Your task to perform on an android device: create a new album in the google photos Image 0: 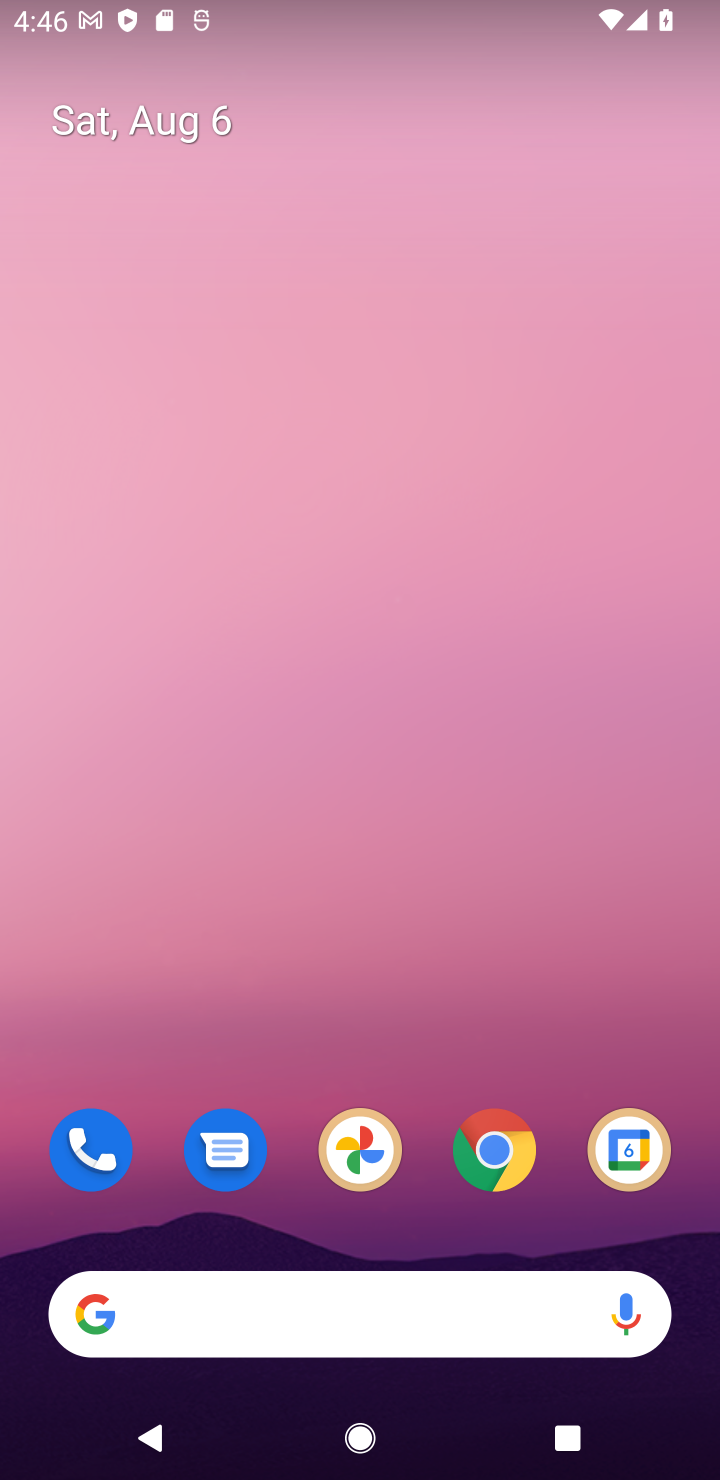
Step 0: click (356, 1143)
Your task to perform on an android device: create a new album in the google photos Image 1: 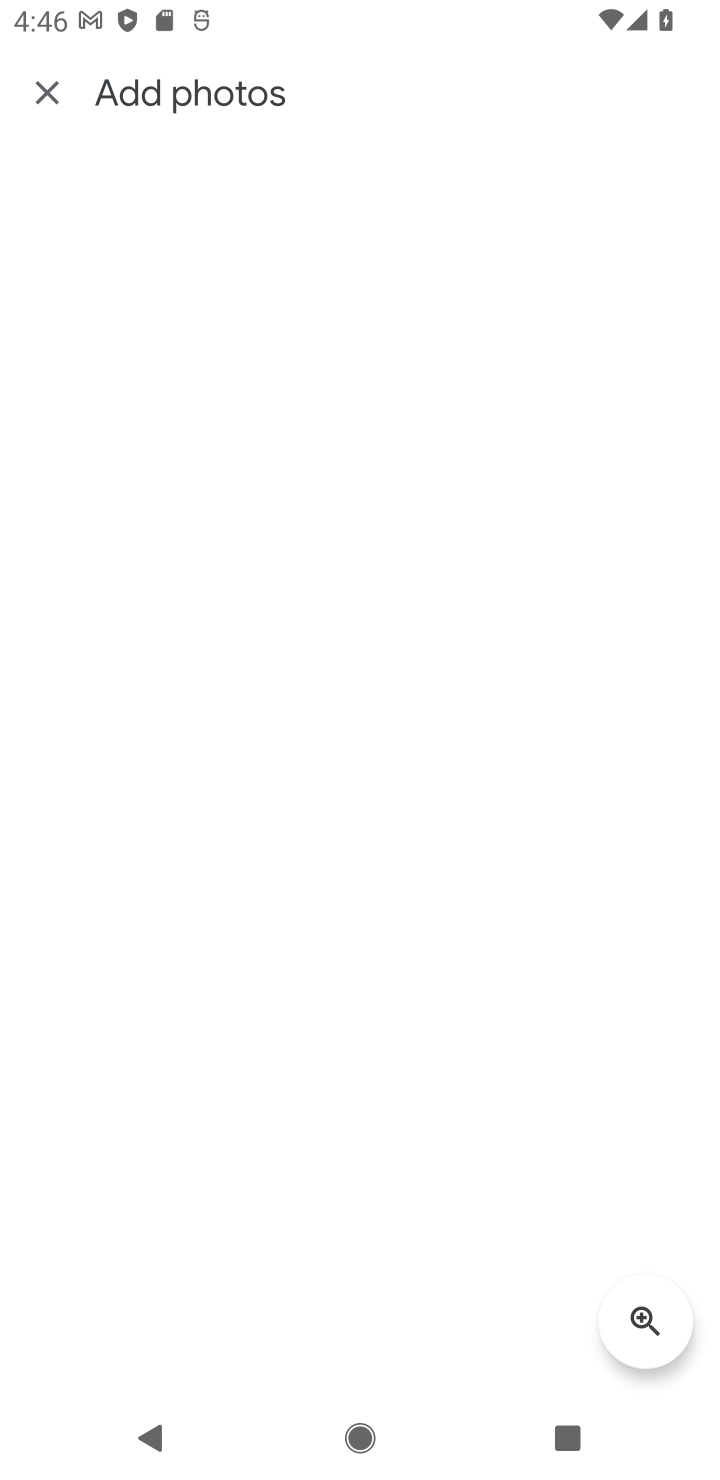
Step 1: click (42, 87)
Your task to perform on an android device: create a new album in the google photos Image 2: 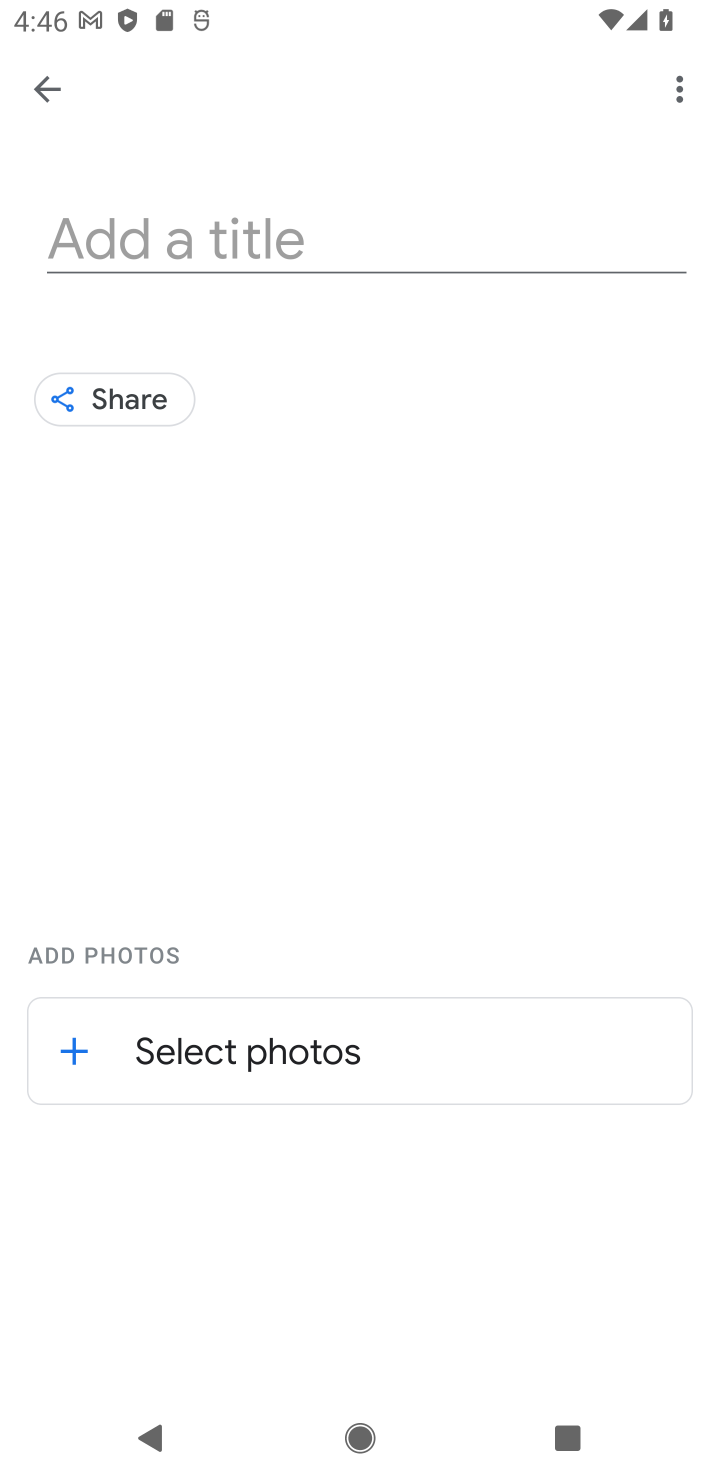
Step 2: click (212, 1048)
Your task to perform on an android device: create a new album in the google photos Image 3: 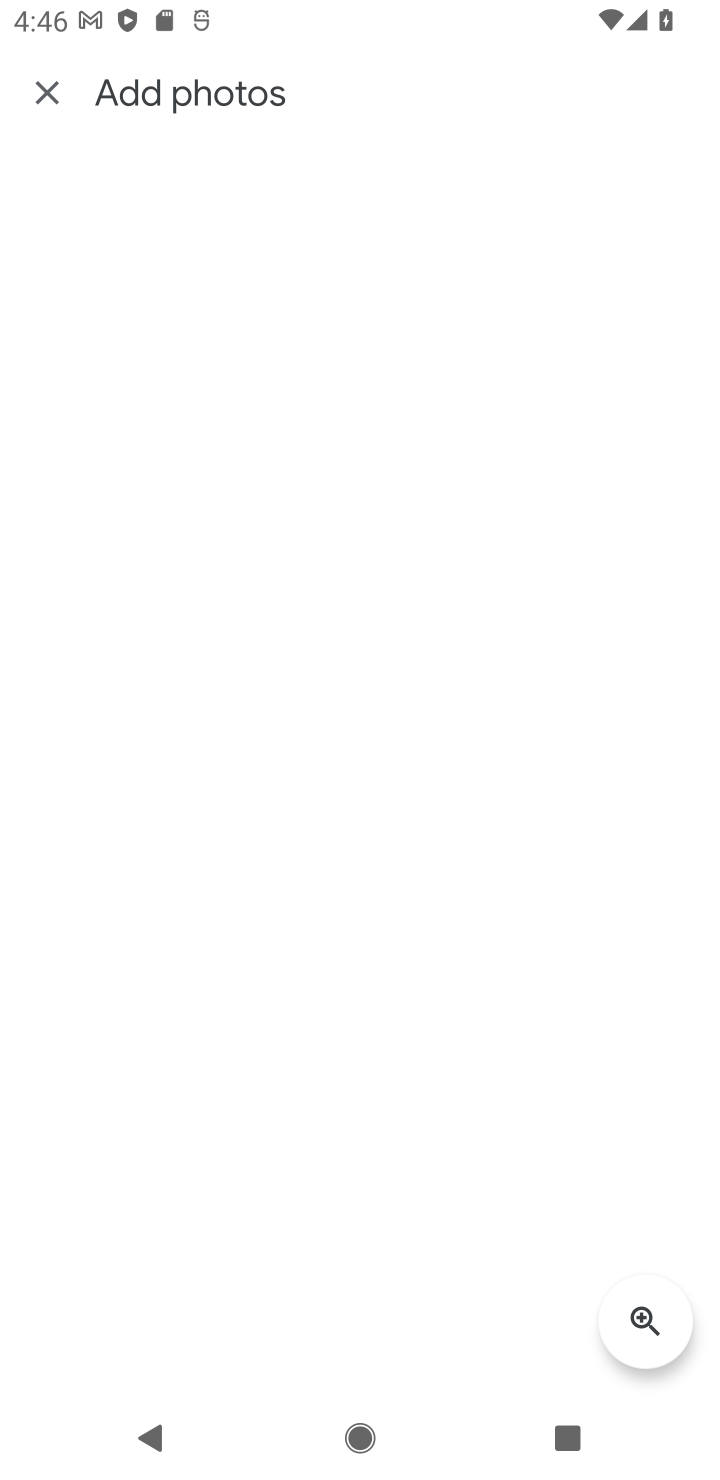
Step 3: task complete